Your task to perform on an android device: add a contact in the contacts app Image 0: 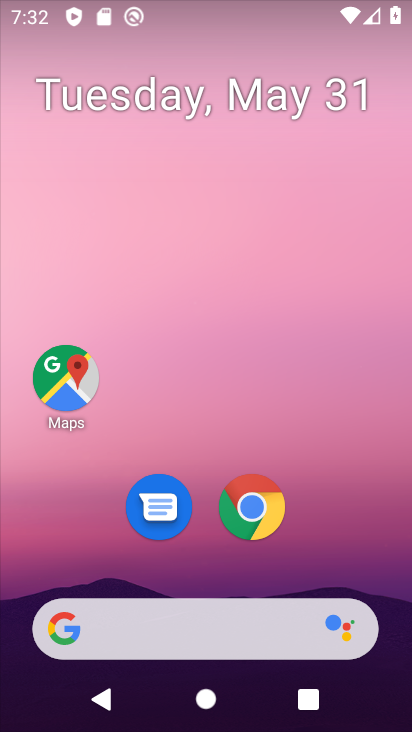
Step 0: drag from (371, 585) to (341, 20)
Your task to perform on an android device: add a contact in the contacts app Image 1: 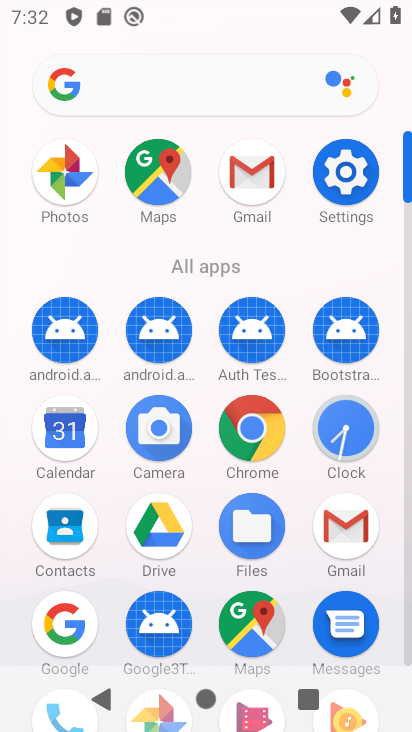
Step 1: click (49, 535)
Your task to perform on an android device: add a contact in the contacts app Image 2: 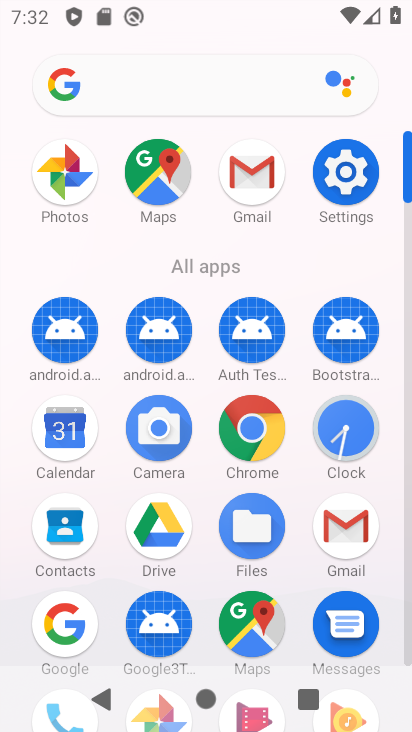
Step 2: click (60, 539)
Your task to perform on an android device: add a contact in the contacts app Image 3: 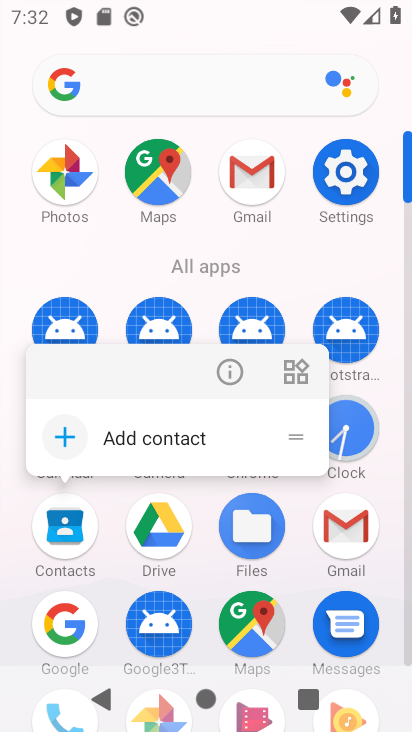
Step 3: click (68, 534)
Your task to perform on an android device: add a contact in the contacts app Image 4: 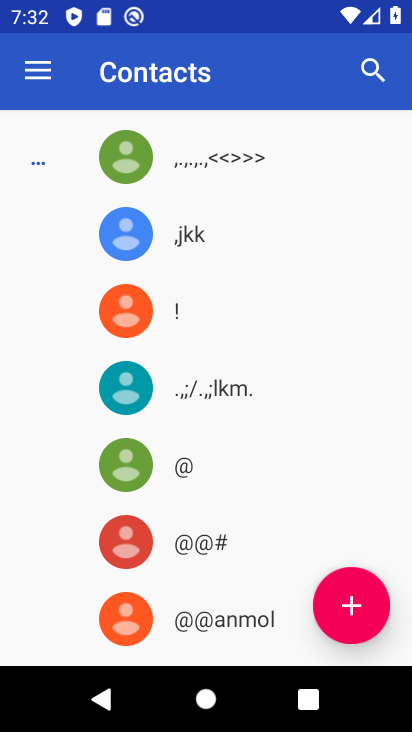
Step 4: click (351, 610)
Your task to perform on an android device: add a contact in the contacts app Image 5: 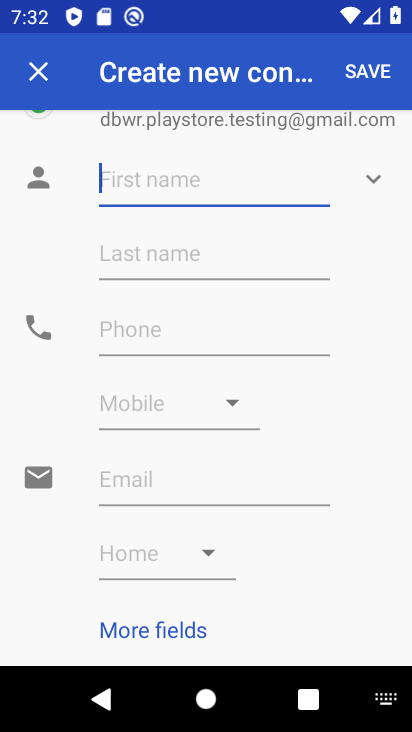
Step 5: type "munmun"
Your task to perform on an android device: add a contact in the contacts app Image 6: 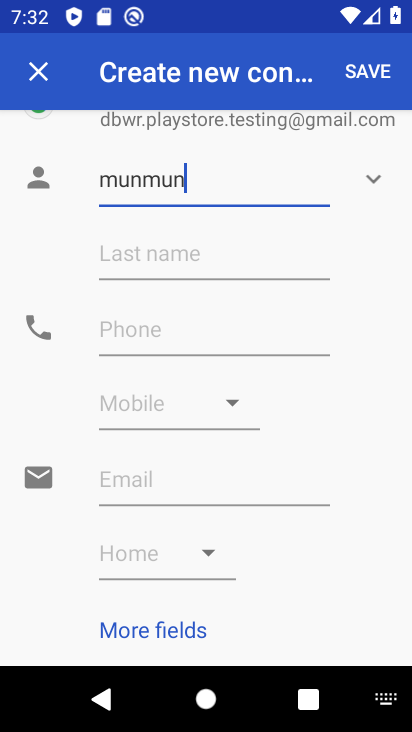
Step 6: click (221, 335)
Your task to perform on an android device: add a contact in the contacts app Image 7: 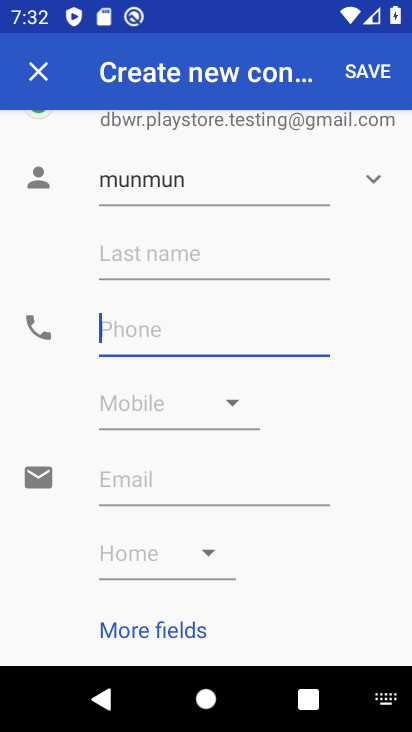
Step 7: type "987665456788"
Your task to perform on an android device: add a contact in the contacts app Image 8: 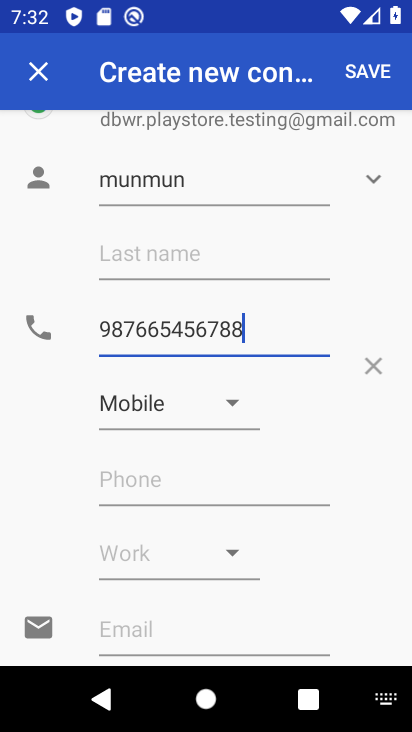
Step 8: click (362, 75)
Your task to perform on an android device: add a contact in the contacts app Image 9: 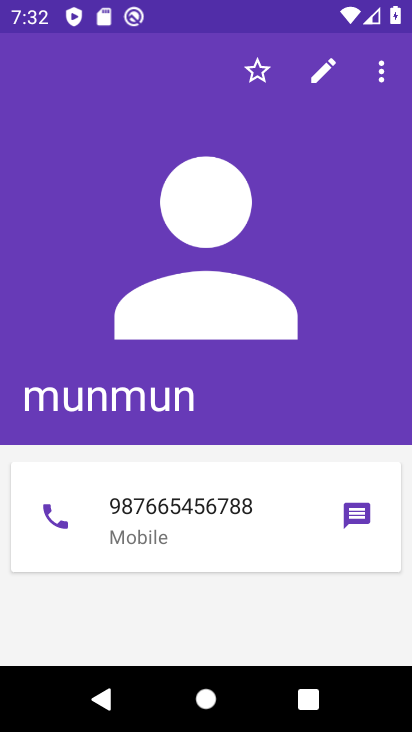
Step 9: task complete